Your task to perform on an android device: turn on sleep mode Image 0: 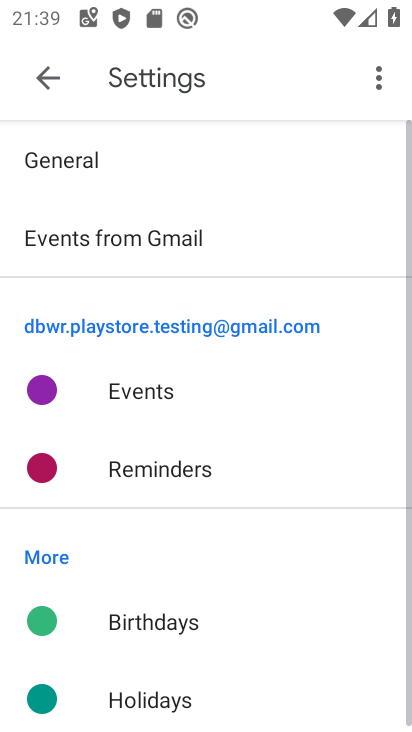
Step 0: press home button
Your task to perform on an android device: turn on sleep mode Image 1: 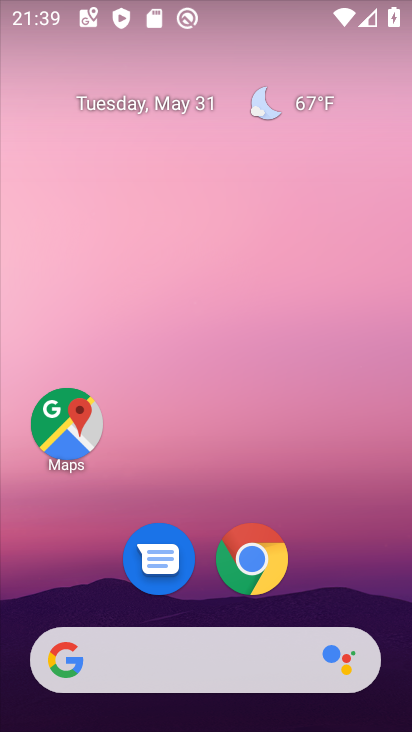
Step 1: drag from (316, 590) to (329, 77)
Your task to perform on an android device: turn on sleep mode Image 2: 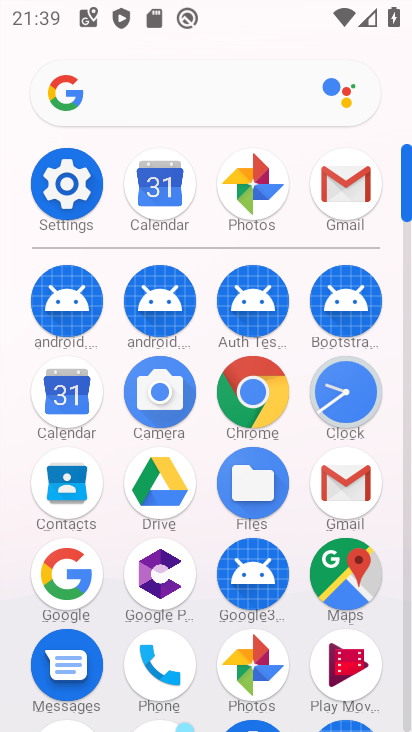
Step 2: click (62, 180)
Your task to perform on an android device: turn on sleep mode Image 3: 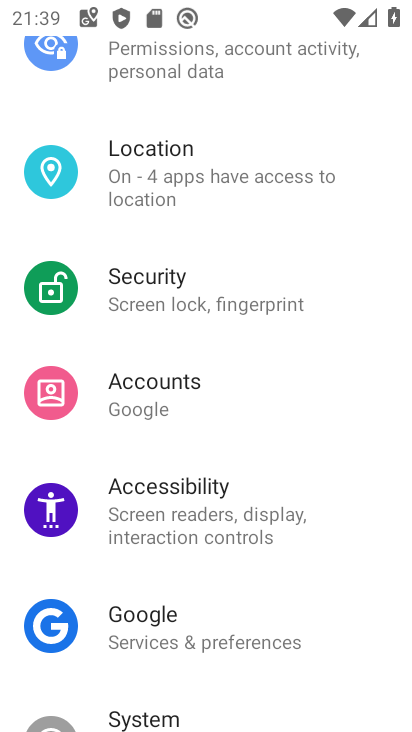
Step 3: click (188, 619)
Your task to perform on an android device: turn on sleep mode Image 4: 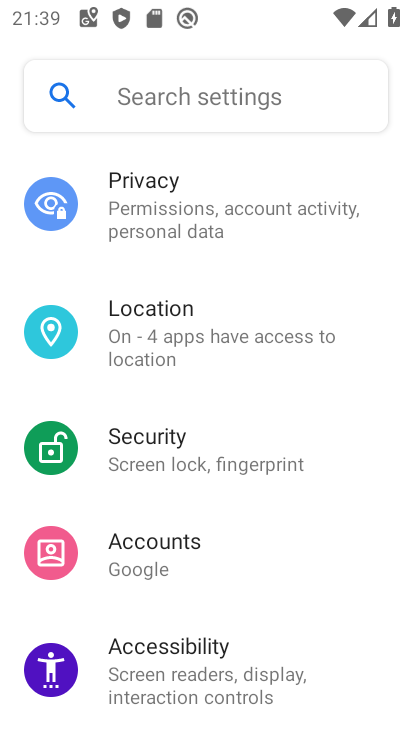
Step 4: drag from (179, 223) to (233, 570)
Your task to perform on an android device: turn on sleep mode Image 5: 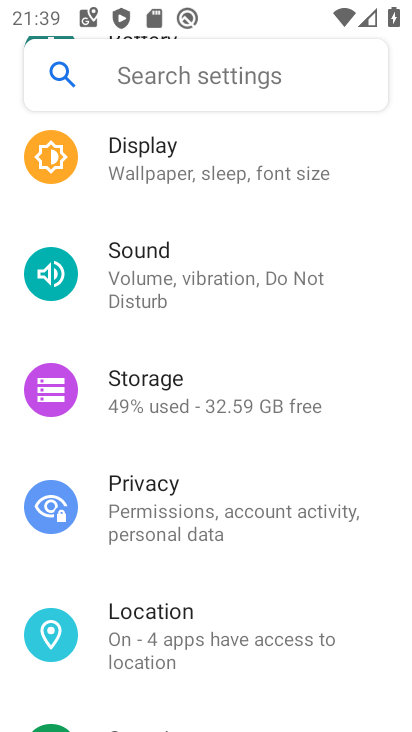
Step 5: click (192, 152)
Your task to perform on an android device: turn on sleep mode Image 6: 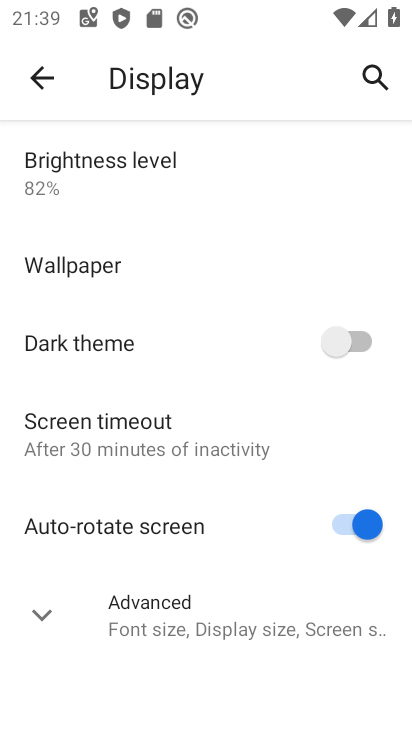
Step 6: click (145, 443)
Your task to perform on an android device: turn on sleep mode Image 7: 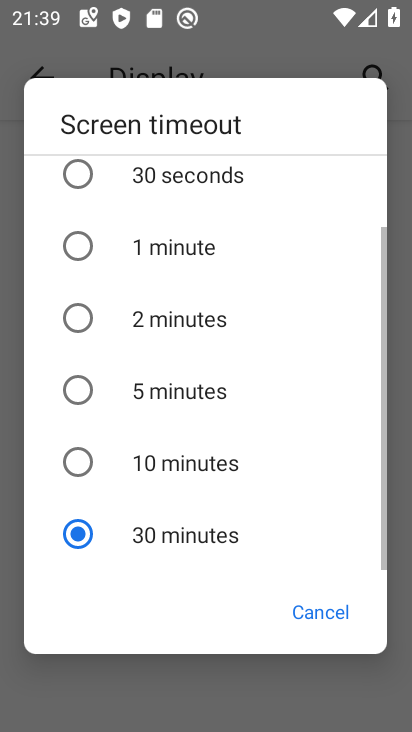
Step 7: task complete